Your task to perform on an android device: Is it going to rain today? Image 0: 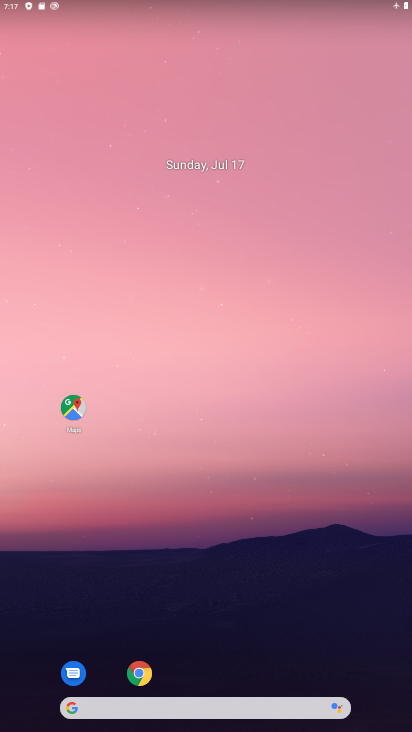
Step 0: drag from (261, 593) to (115, 30)
Your task to perform on an android device: Is it going to rain today? Image 1: 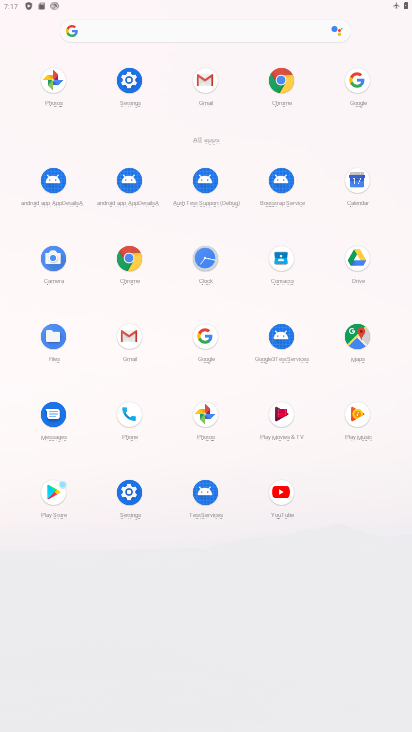
Step 1: click (201, 349)
Your task to perform on an android device: Is it going to rain today? Image 2: 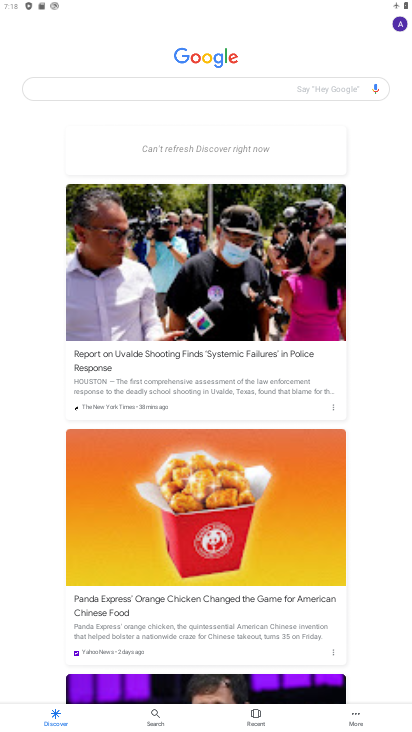
Step 2: click (265, 73)
Your task to perform on an android device: Is it going to rain today? Image 3: 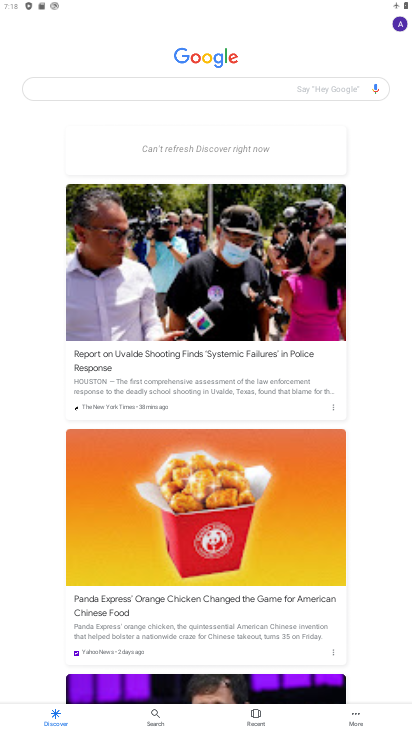
Step 3: click (267, 86)
Your task to perform on an android device: Is it going to rain today? Image 4: 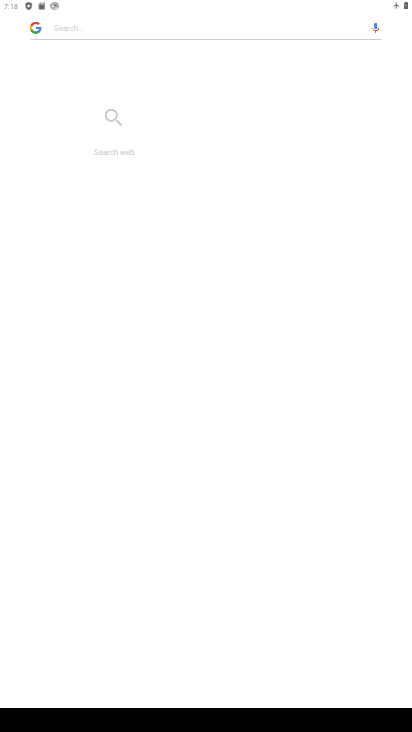
Step 4: type "wether"
Your task to perform on an android device: Is it going to rain today? Image 5: 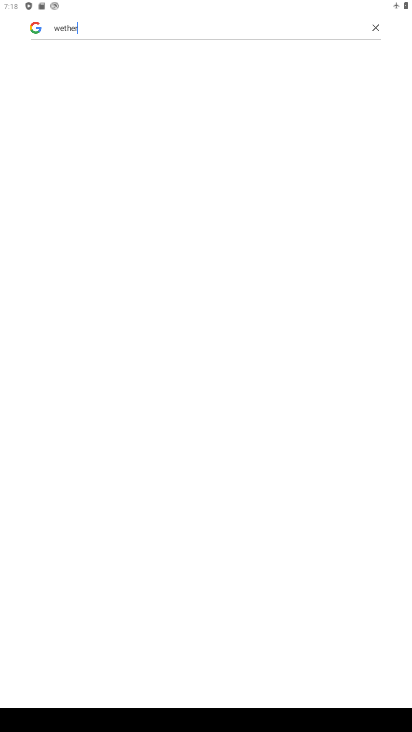
Step 5: press enter
Your task to perform on an android device: Is it going to rain today? Image 6: 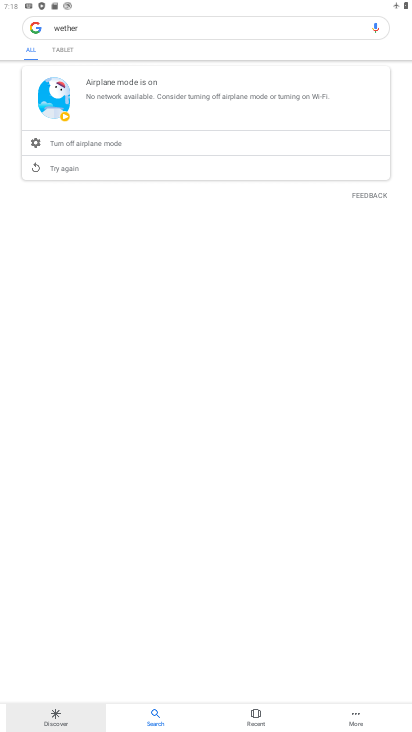
Step 6: task complete